Your task to perform on an android device: add a contact Image 0: 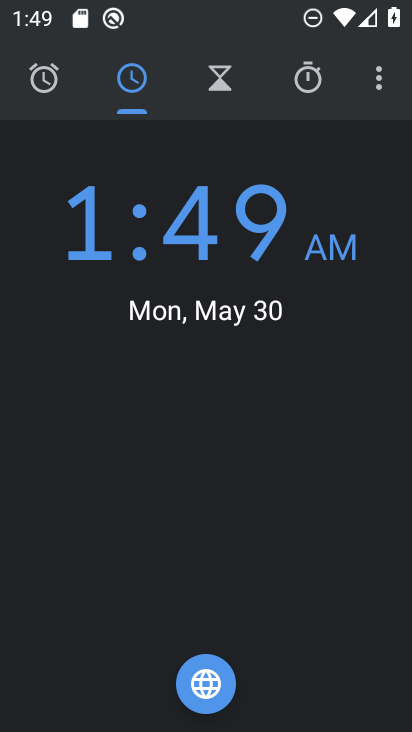
Step 0: press home button
Your task to perform on an android device: add a contact Image 1: 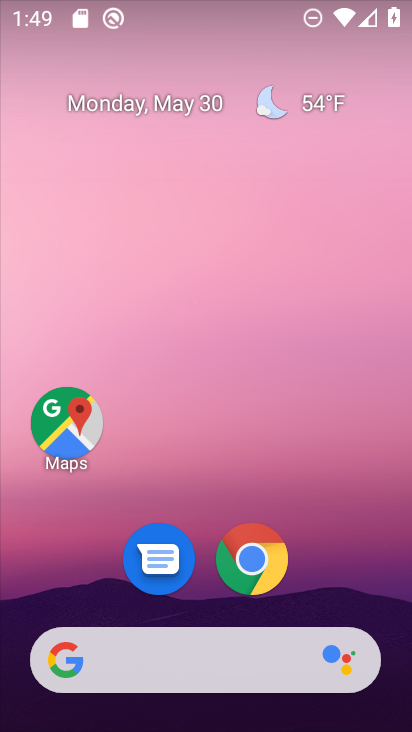
Step 1: drag from (339, 597) to (330, 17)
Your task to perform on an android device: add a contact Image 2: 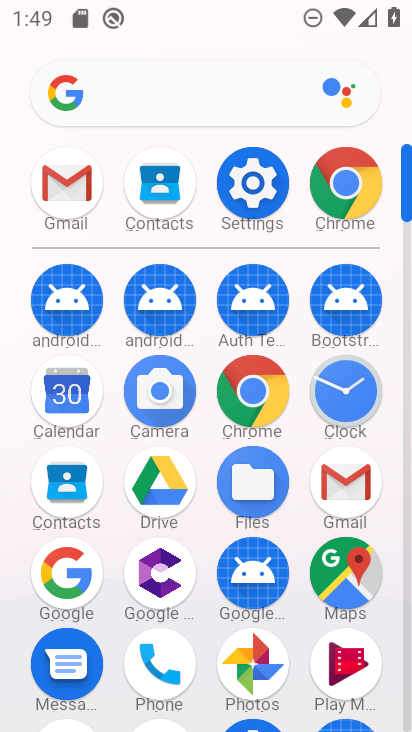
Step 2: click (57, 495)
Your task to perform on an android device: add a contact Image 3: 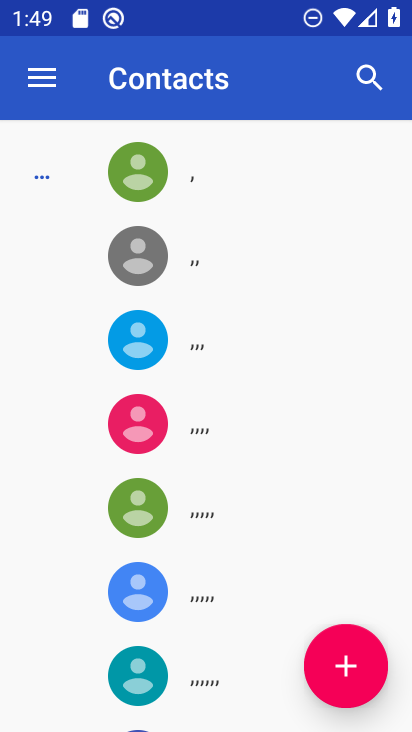
Step 3: click (352, 667)
Your task to perform on an android device: add a contact Image 4: 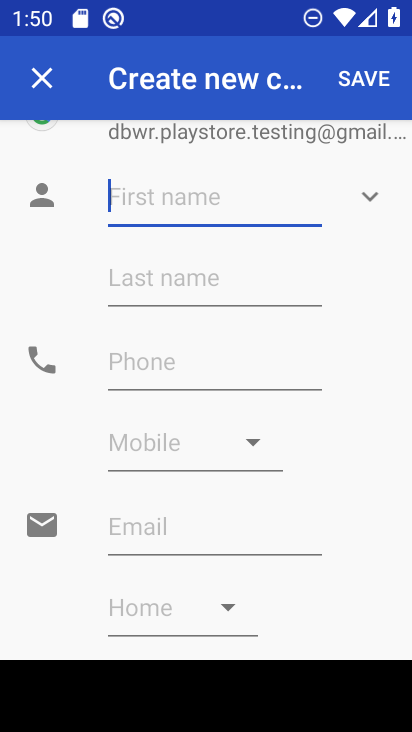
Step 4: type "ujkiokjuk"
Your task to perform on an android device: add a contact Image 5: 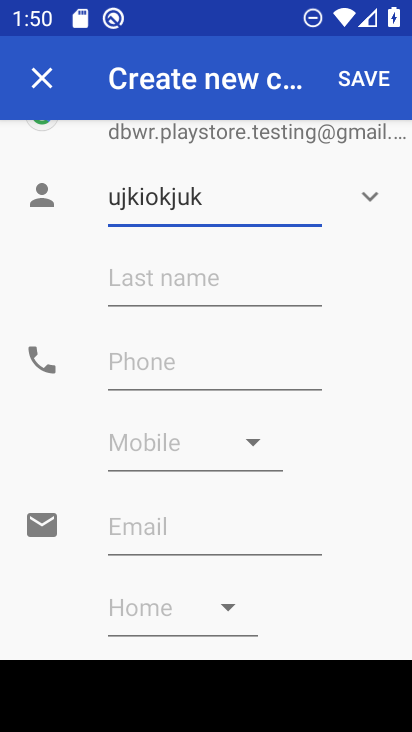
Step 5: click (175, 376)
Your task to perform on an android device: add a contact Image 6: 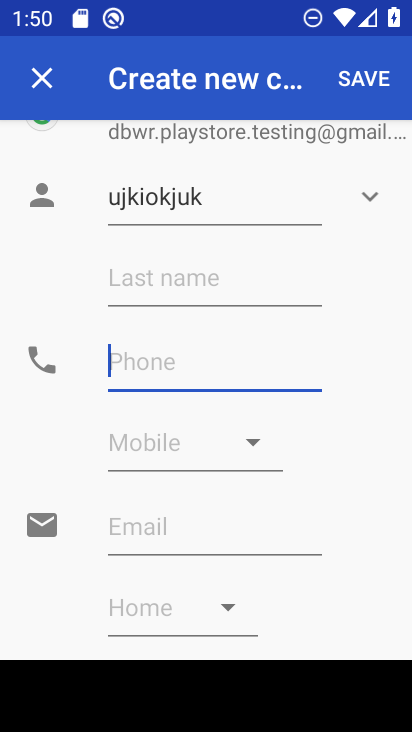
Step 6: type "9807654321"
Your task to perform on an android device: add a contact Image 7: 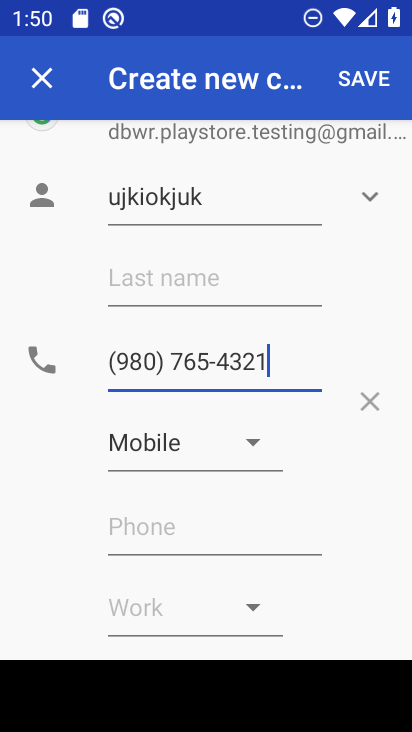
Step 7: click (375, 76)
Your task to perform on an android device: add a contact Image 8: 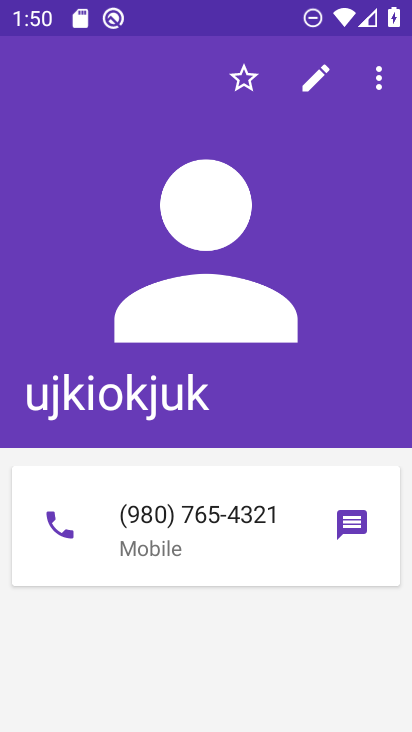
Step 8: task complete